Your task to perform on an android device: move an email to a new category in the gmail app Image 0: 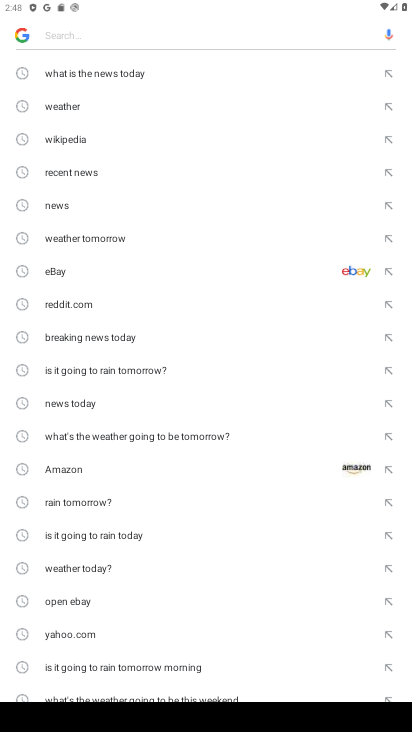
Step 0: press home button
Your task to perform on an android device: move an email to a new category in the gmail app Image 1: 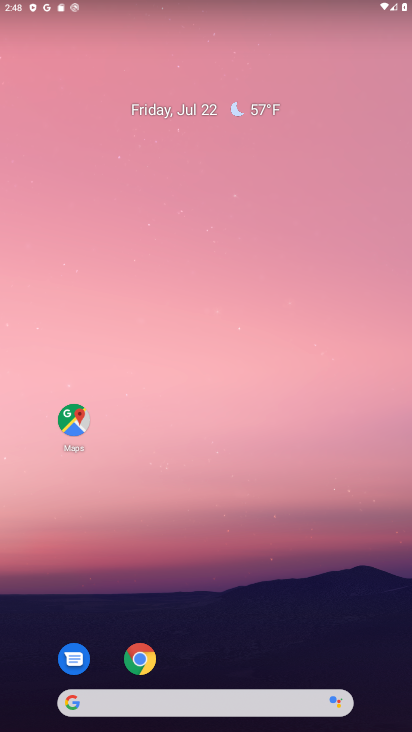
Step 1: drag from (218, 621) to (239, 147)
Your task to perform on an android device: move an email to a new category in the gmail app Image 2: 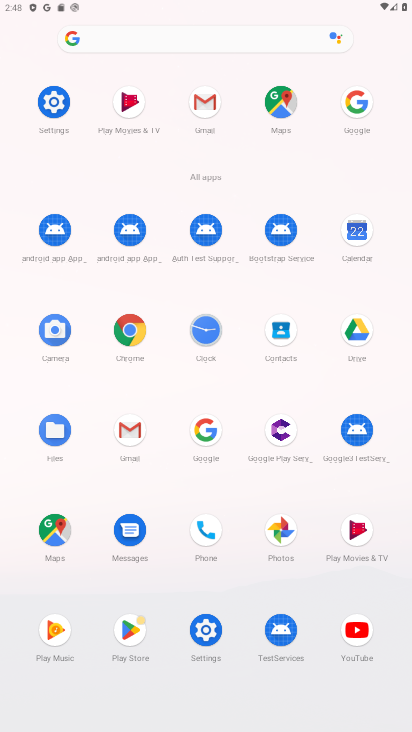
Step 2: click (209, 114)
Your task to perform on an android device: move an email to a new category in the gmail app Image 3: 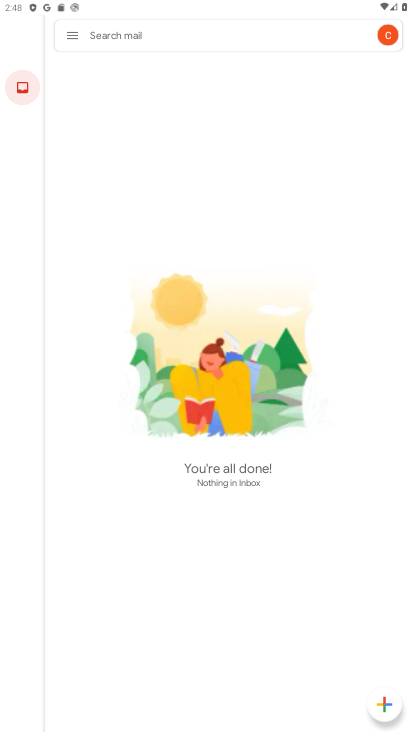
Step 3: click (75, 38)
Your task to perform on an android device: move an email to a new category in the gmail app Image 4: 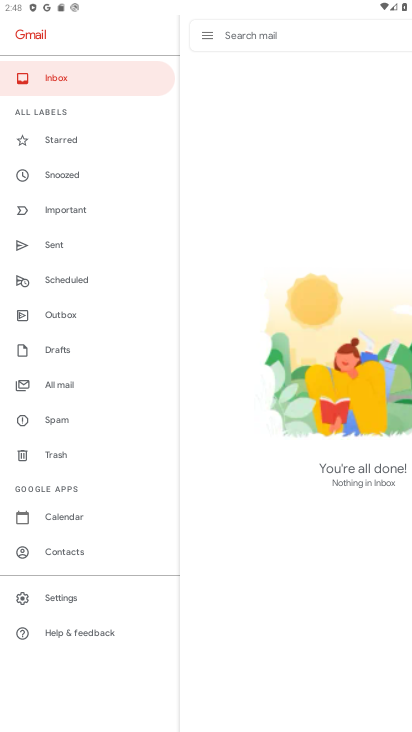
Step 4: click (38, 390)
Your task to perform on an android device: move an email to a new category in the gmail app Image 5: 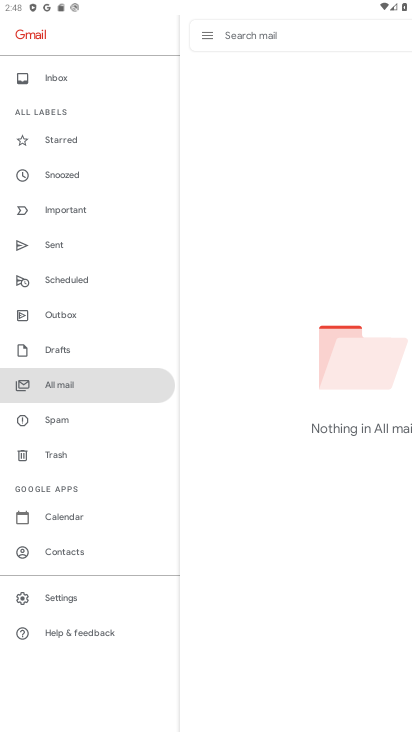
Step 5: task complete